Your task to perform on an android device: Go to eBay Image 0: 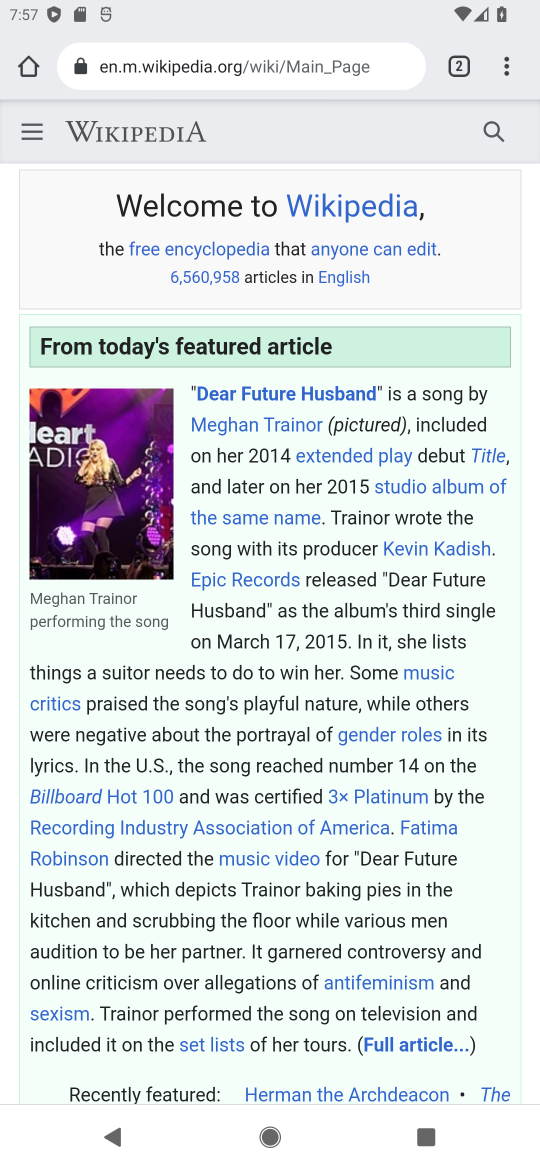
Step 0: press home button
Your task to perform on an android device: Go to eBay Image 1: 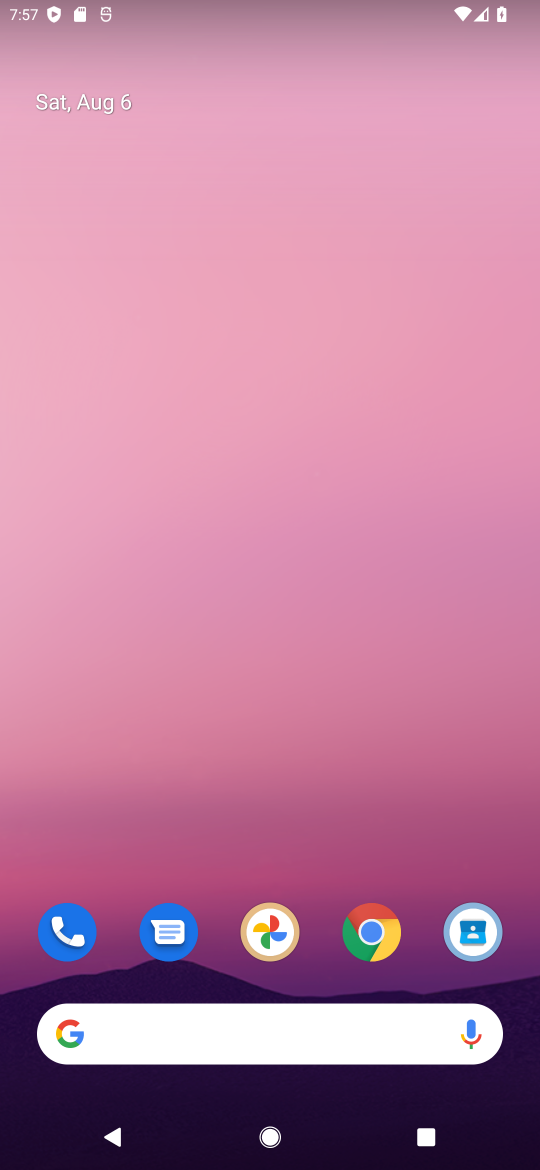
Step 1: click (382, 932)
Your task to perform on an android device: Go to eBay Image 2: 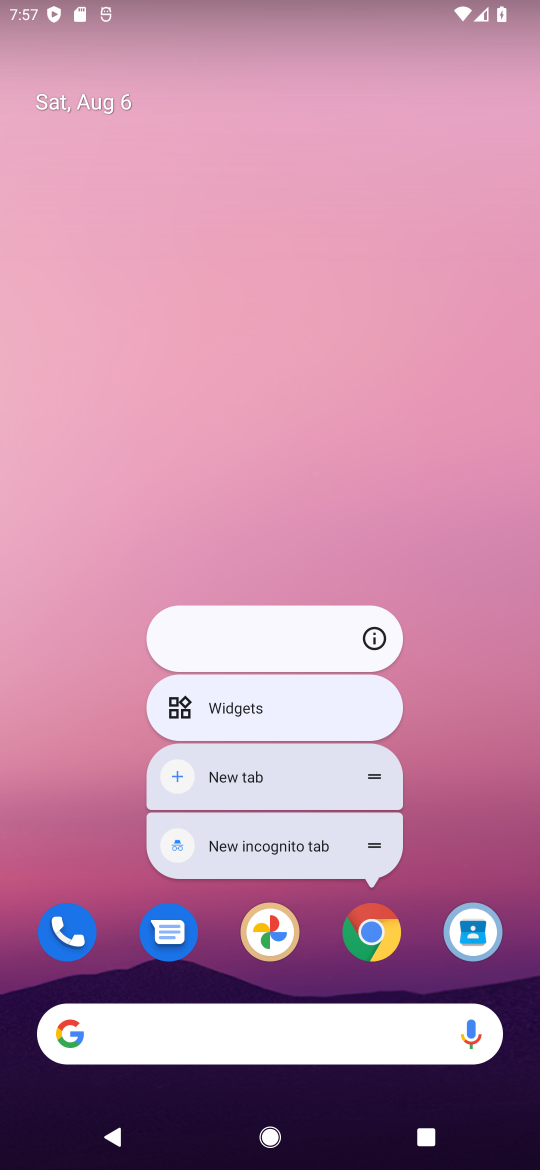
Step 2: click (370, 929)
Your task to perform on an android device: Go to eBay Image 3: 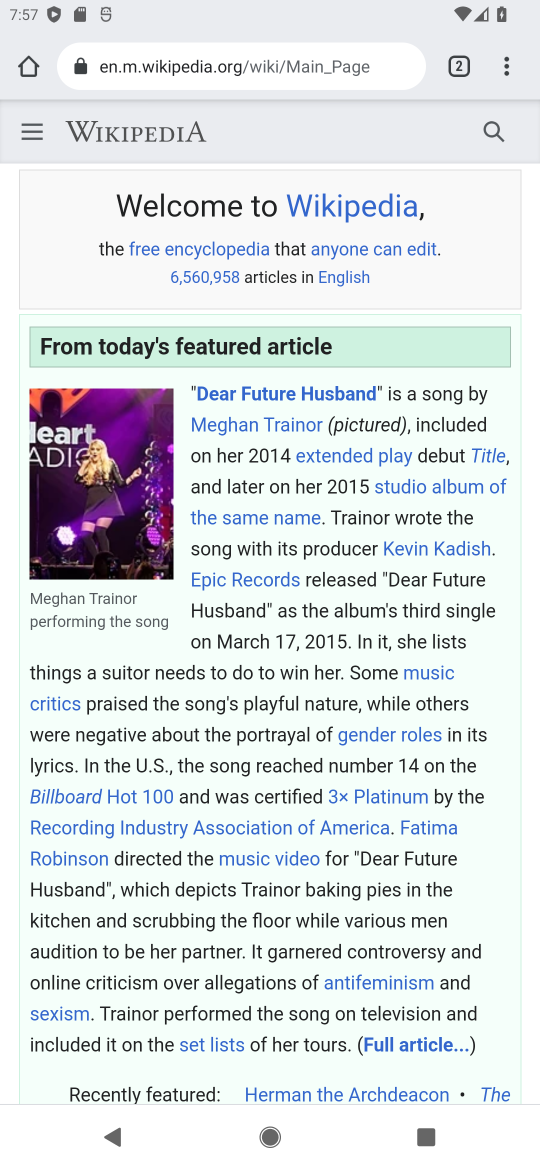
Step 3: drag from (507, 63) to (300, 194)
Your task to perform on an android device: Go to eBay Image 4: 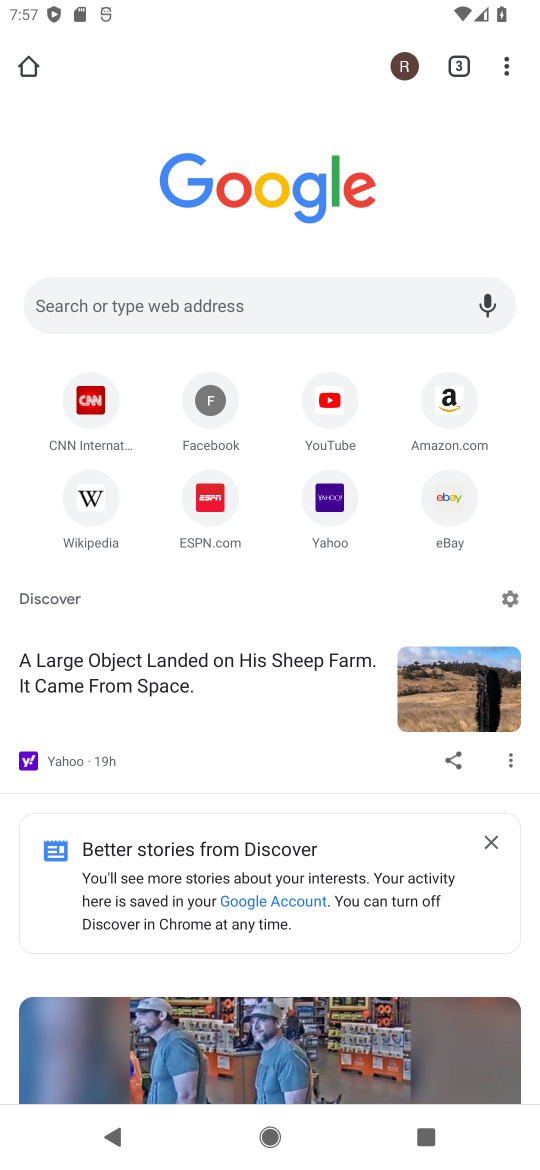
Step 4: click (443, 493)
Your task to perform on an android device: Go to eBay Image 5: 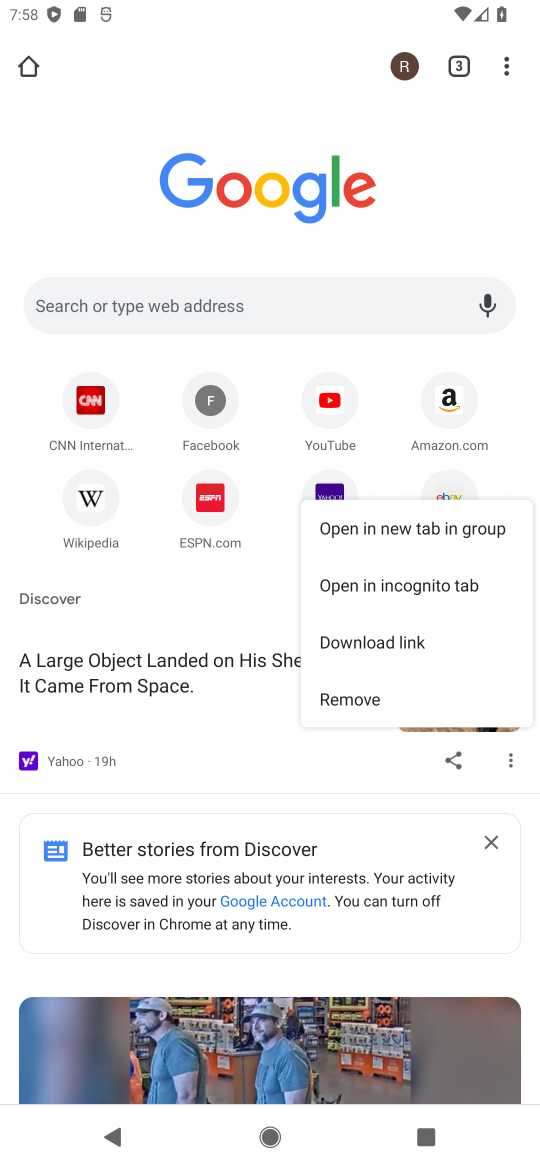
Step 5: click (449, 485)
Your task to perform on an android device: Go to eBay Image 6: 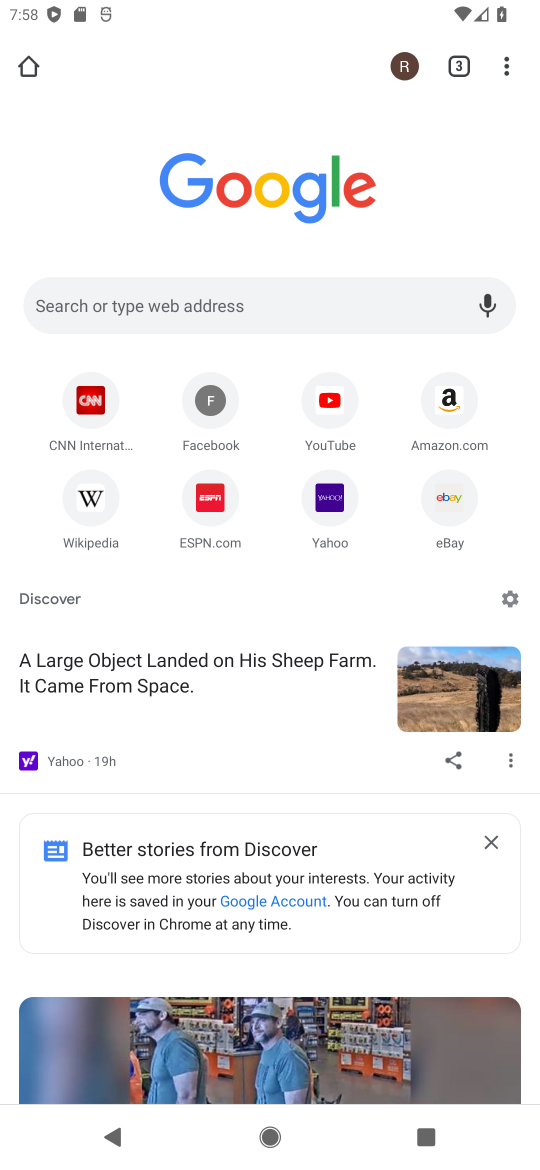
Step 6: click (448, 501)
Your task to perform on an android device: Go to eBay Image 7: 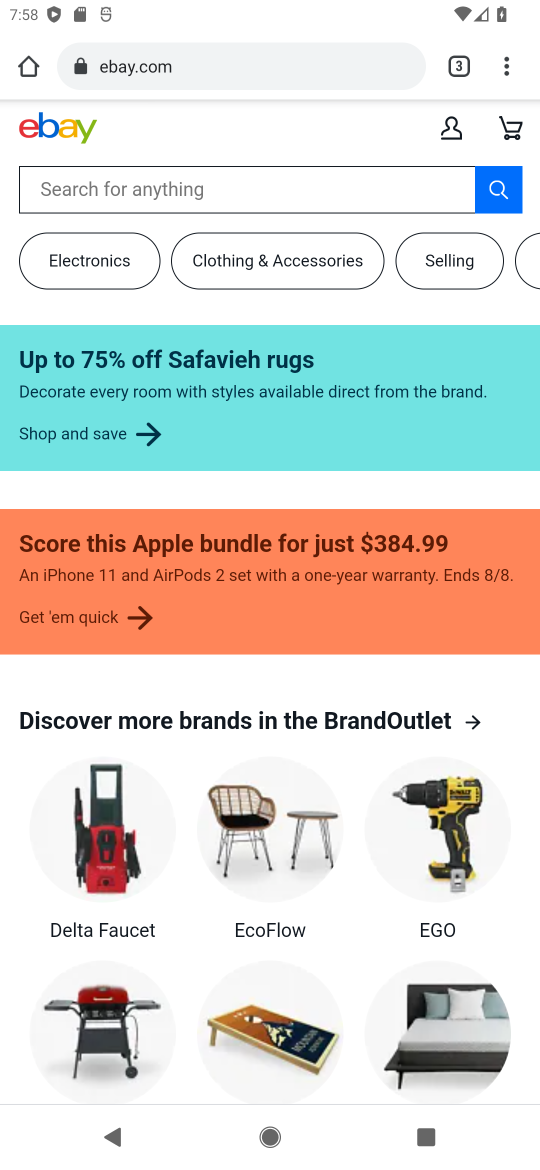
Step 7: task complete